Your task to perform on an android device: create a new album in the google photos Image 0: 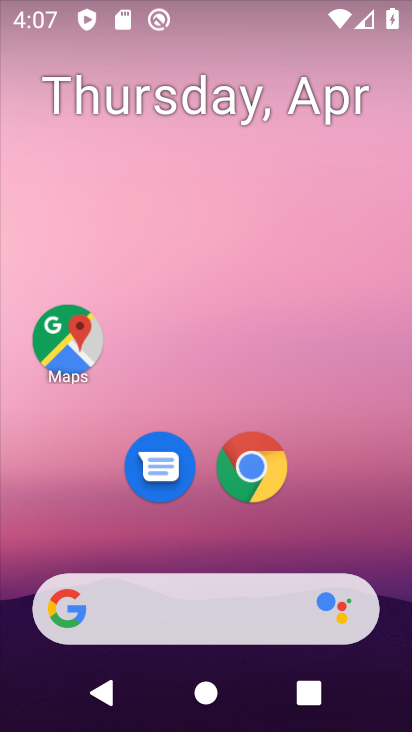
Step 0: drag from (178, 500) to (317, 3)
Your task to perform on an android device: create a new album in the google photos Image 1: 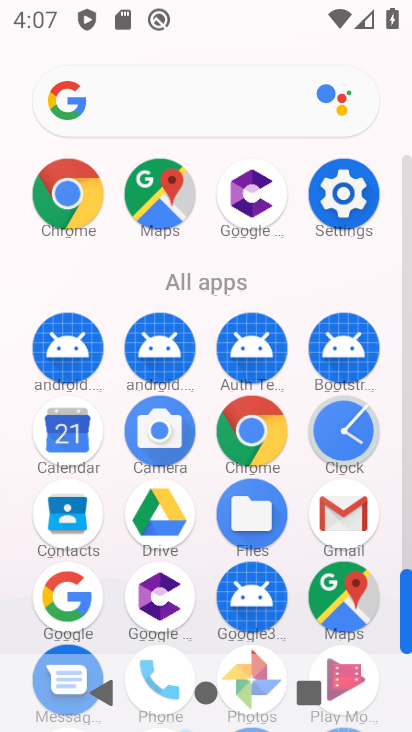
Step 1: drag from (205, 565) to (237, 268)
Your task to perform on an android device: create a new album in the google photos Image 2: 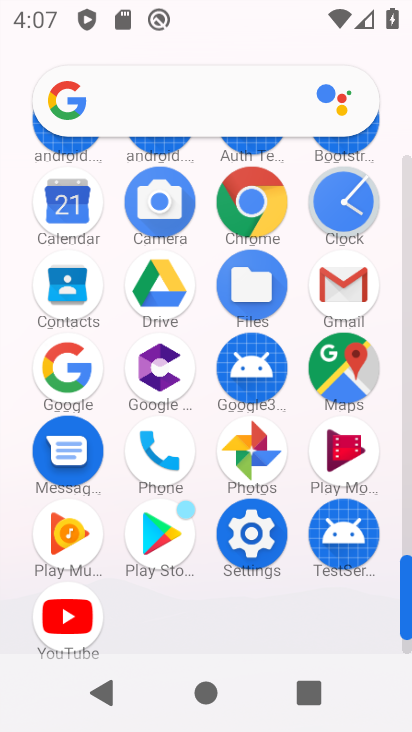
Step 2: click (260, 441)
Your task to perform on an android device: create a new album in the google photos Image 3: 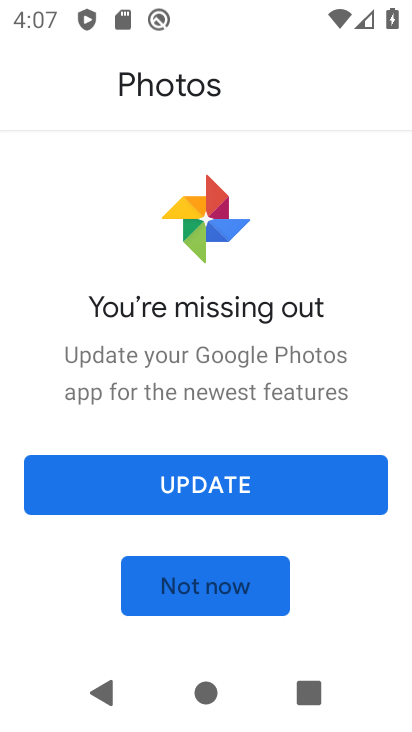
Step 3: click (191, 586)
Your task to perform on an android device: create a new album in the google photos Image 4: 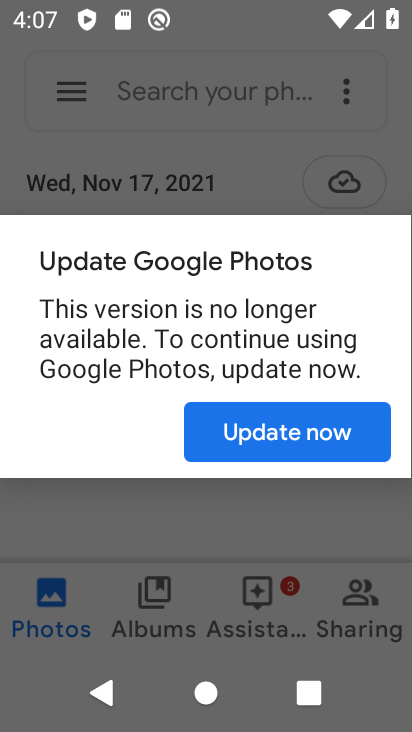
Step 4: click (296, 437)
Your task to perform on an android device: create a new album in the google photos Image 5: 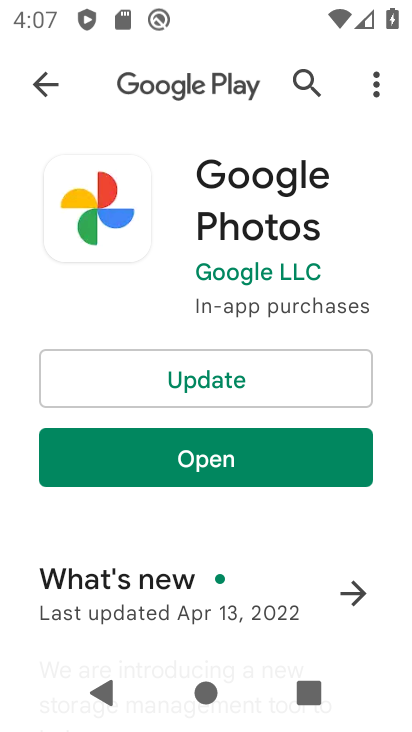
Step 5: click (217, 469)
Your task to perform on an android device: create a new album in the google photos Image 6: 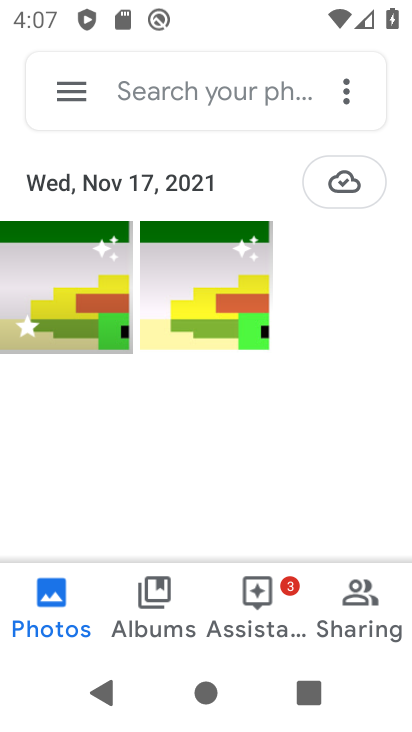
Step 6: click (139, 611)
Your task to perform on an android device: create a new album in the google photos Image 7: 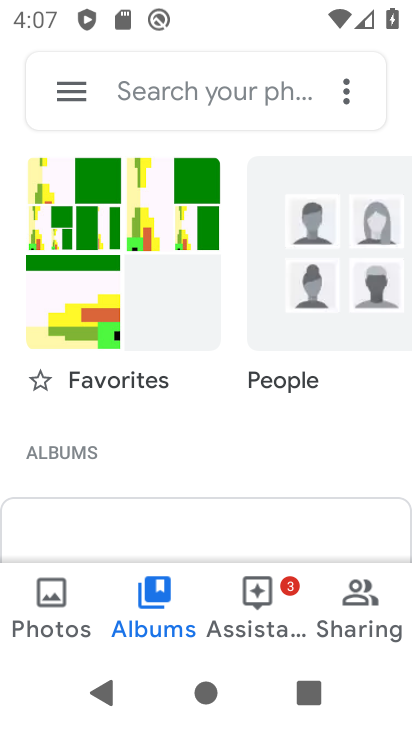
Step 7: drag from (154, 514) to (262, 7)
Your task to perform on an android device: create a new album in the google photos Image 8: 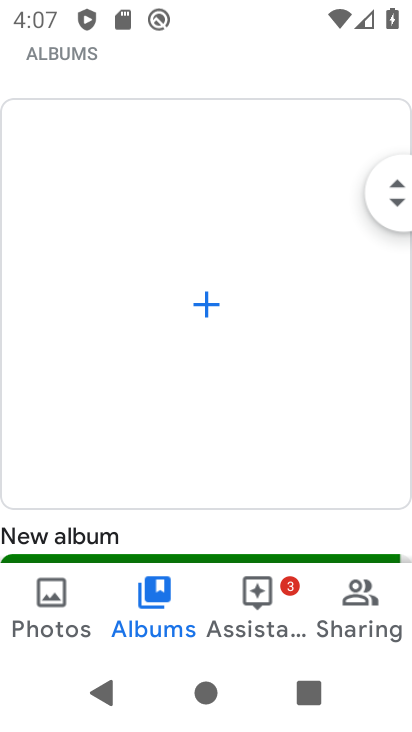
Step 8: click (208, 300)
Your task to perform on an android device: create a new album in the google photos Image 9: 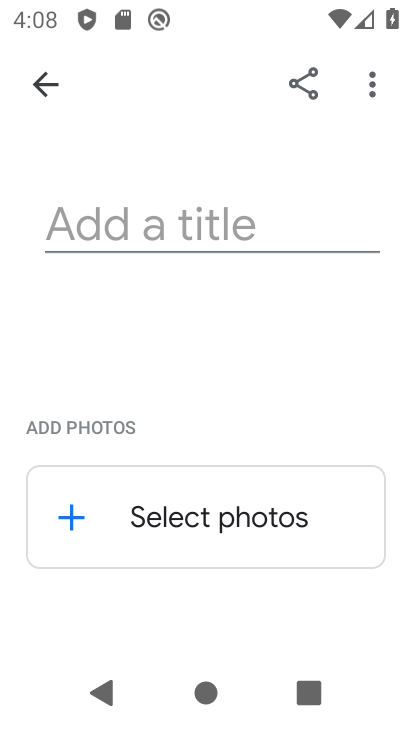
Step 9: click (209, 230)
Your task to perform on an android device: create a new album in the google photos Image 10: 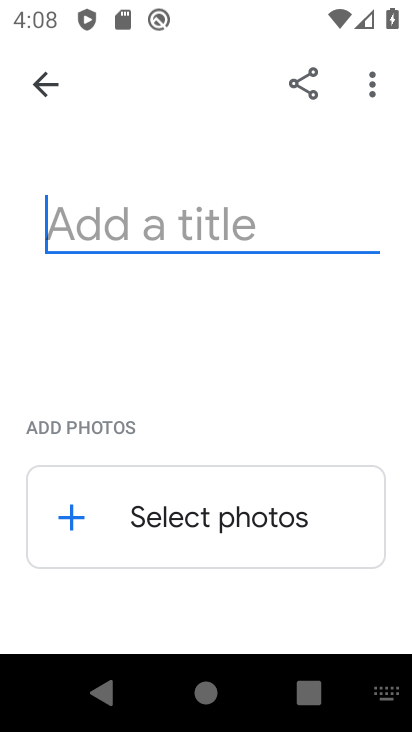
Step 10: type "fled"
Your task to perform on an android device: create a new album in the google photos Image 11: 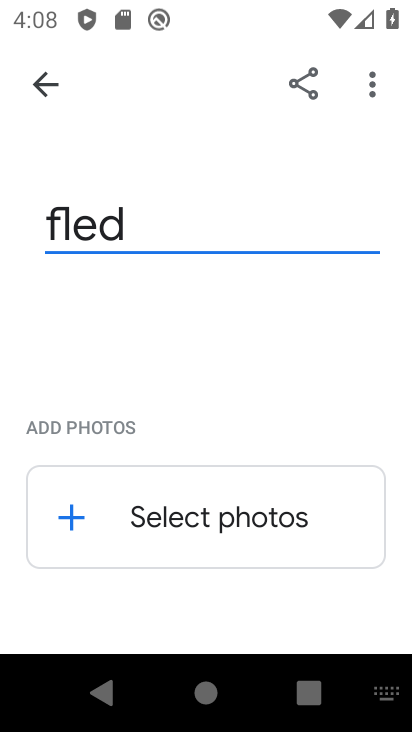
Step 11: click (66, 515)
Your task to perform on an android device: create a new album in the google photos Image 12: 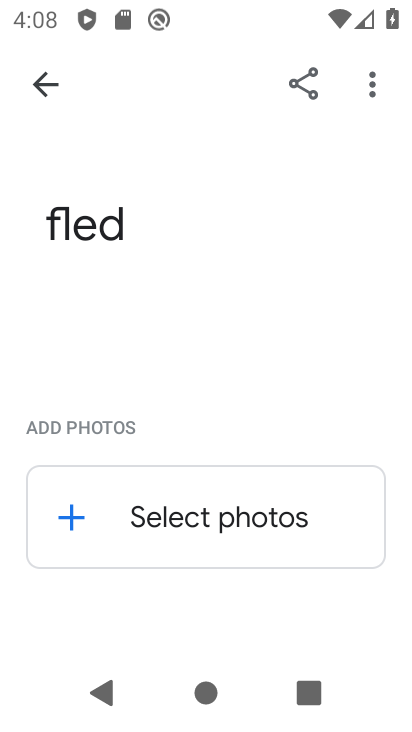
Step 12: click (79, 515)
Your task to perform on an android device: create a new album in the google photos Image 13: 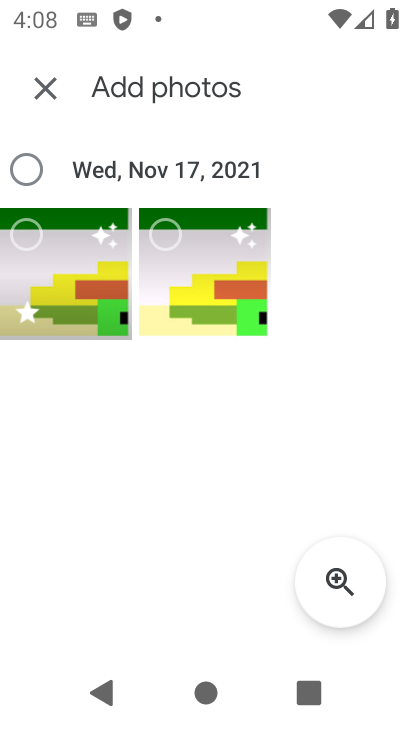
Step 13: click (74, 281)
Your task to perform on an android device: create a new album in the google photos Image 14: 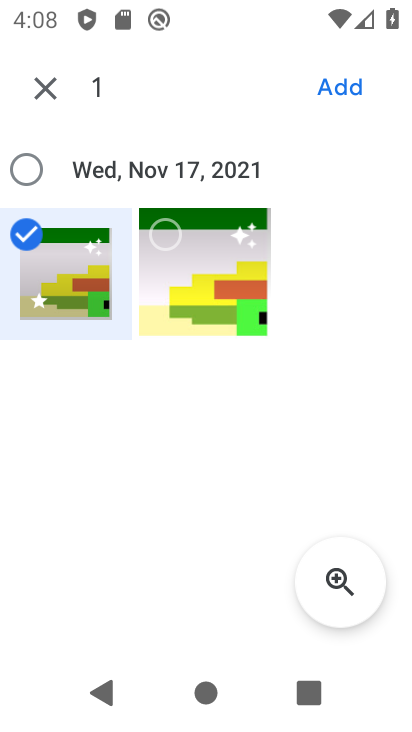
Step 14: click (177, 251)
Your task to perform on an android device: create a new album in the google photos Image 15: 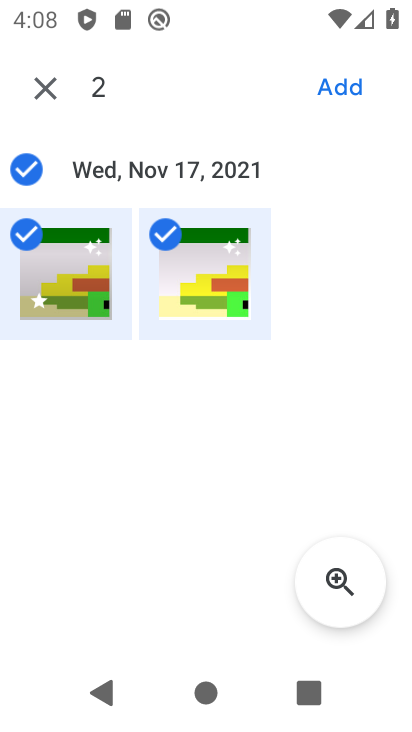
Step 15: click (361, 86)
Your task to perform on an android device: create a new album in the google photos Image 16: 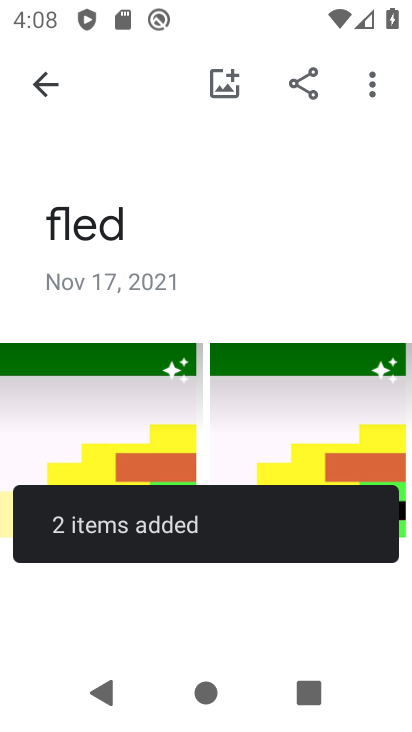
Step 16: task complete